Your task to perform on an android device: Open the calendar app, open the side menu, and click the "Day" option Image 0: 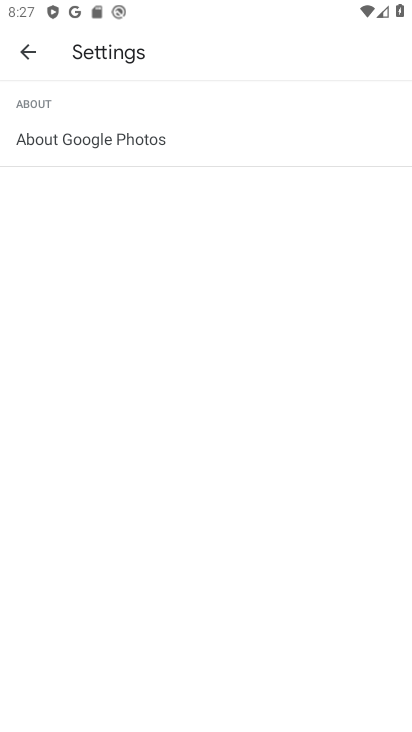
Step 0: press home button
Your task to perform on an android device: Open the calendar app, open the side menu, and click the "Day" option Image 1: 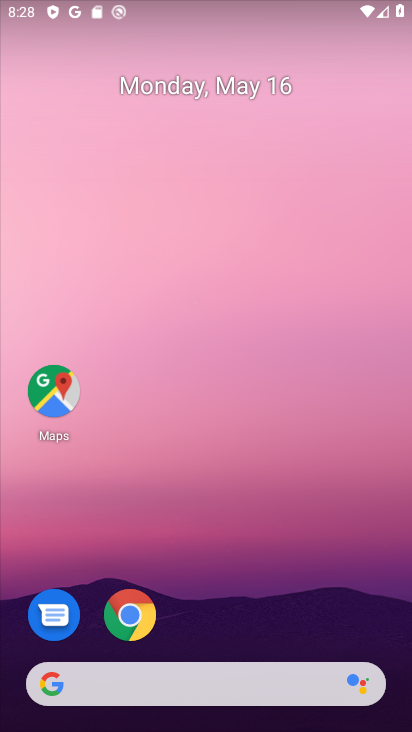
Step 1: drag from (7, 595) to (226, 115)
Your task to perform on an android device: Open the calendar app, open the side menu, and click the "Day" option Image 2: 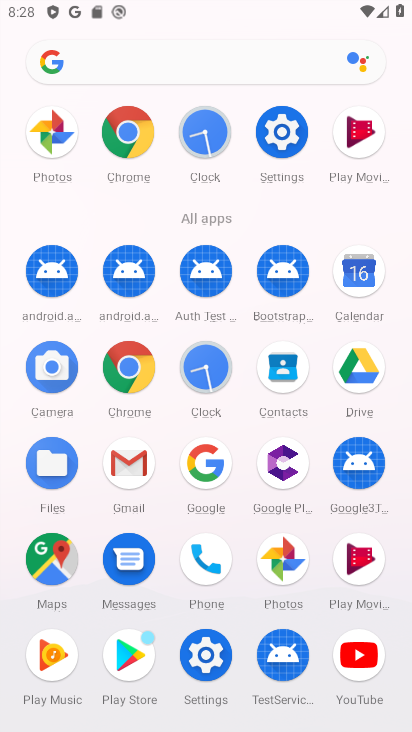
Step 2: click (356, 279)
Your task to perform on an android device: Open the calendar app, open the side menu, and click the "Day" option Image 3: 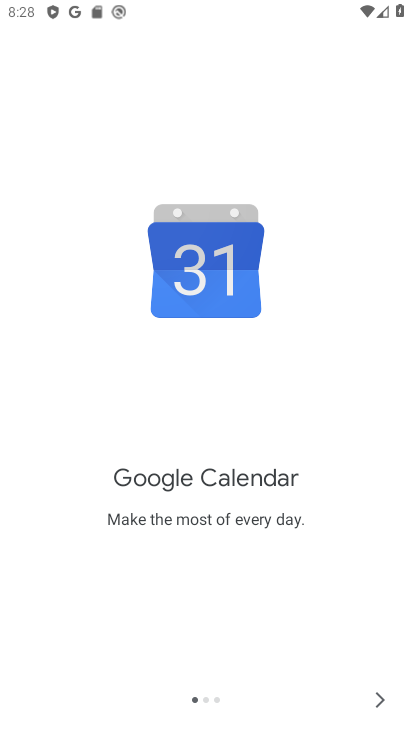
Step 3: click (389, 693)
Your task to perform on an android device: Open the calendar app, open the side menu, and click the "Day" option Image 4: 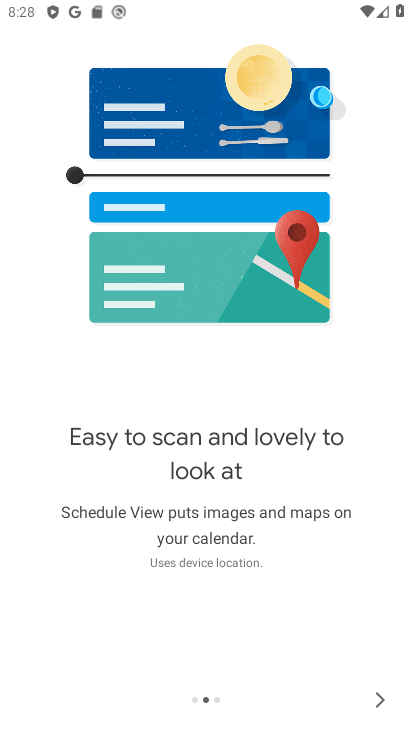
Step 4: click (389, 693)
Your task to perform on an android device: Open the calendar app, open the side menu, and click the "Day" option Image 5: 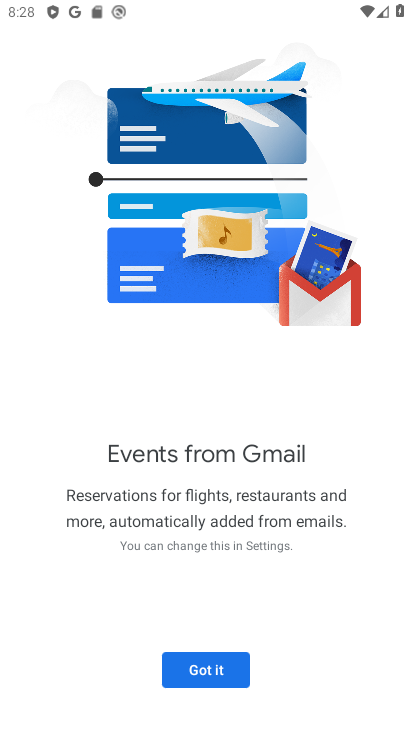
Step 5: click (214, 666)
Your task to perform on an android device: Open the calendar app, open the side menu, and click the "Day" option Image 6: 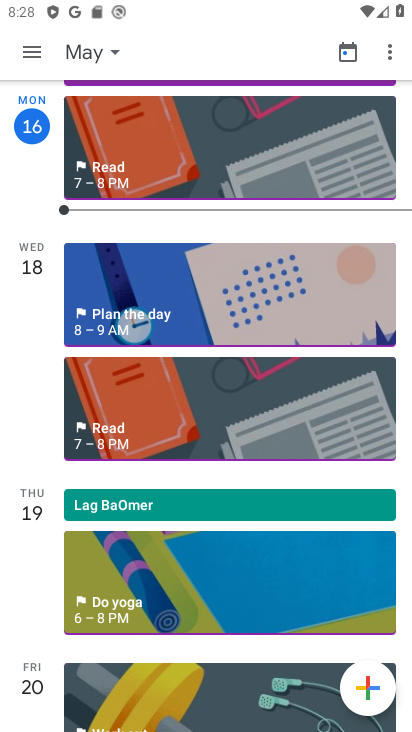
Step 6: click (35, 56)
Your task to perform on an android device: Open the calendar app, open the side menu, and click the "Day" option Image 7: 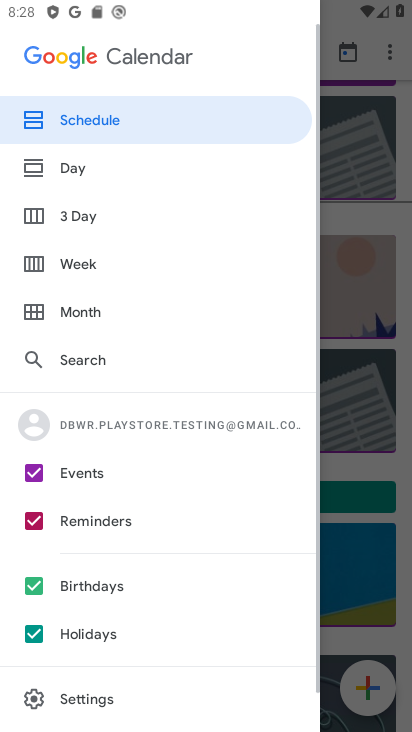
Step 7: click (81, 170)
Your task to perform on an android device: Open the calendar app, open the side menu, and click the "Day" option Image 8: 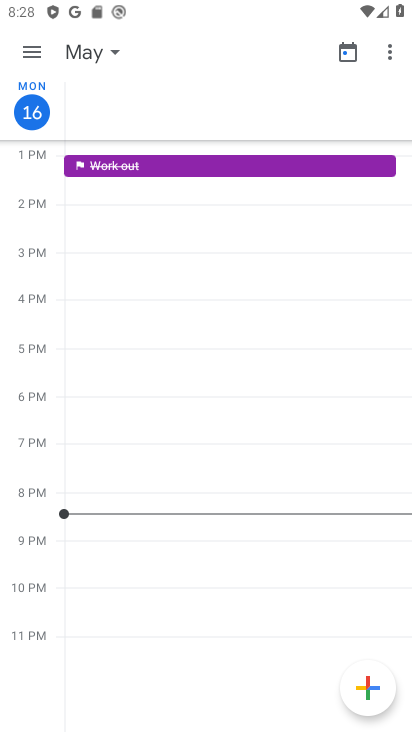
Step 8: task complete